Your task to perform on an android device: Open Reddit.com Image 0: 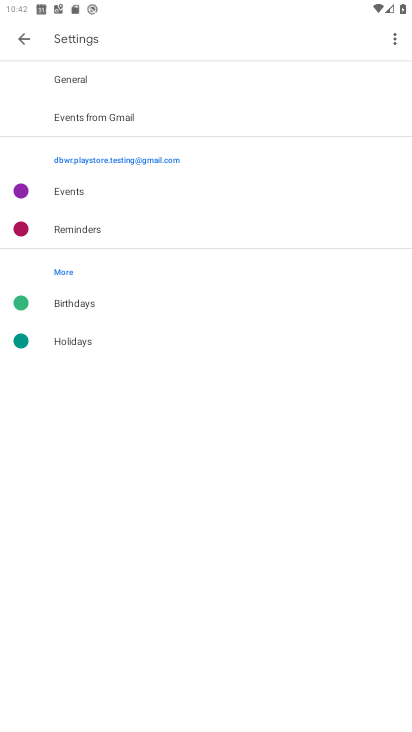
Step 0: press home button
Your task to perform on an android device: Open Reddit.com Image 1: 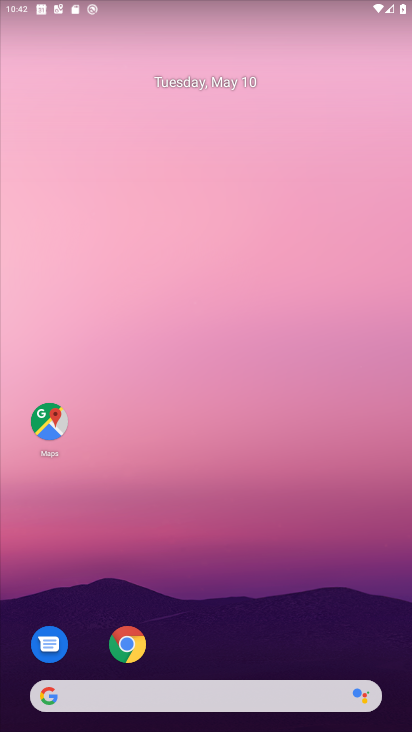
Step 1: drag from (165, 635) to (222, 86)
Your task to perform on an android device: Open Reddit.com Image 2: 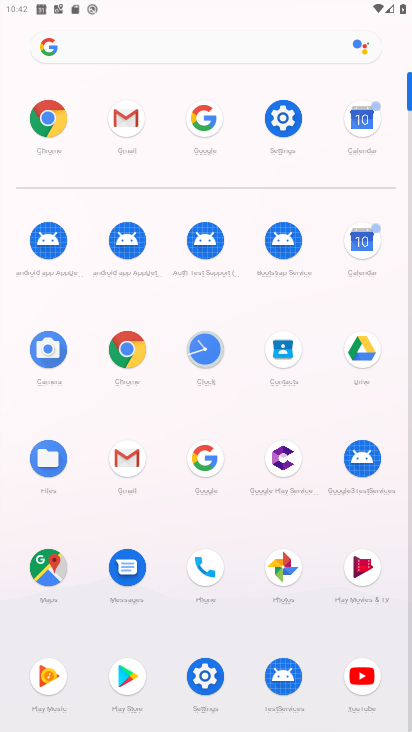
Step 2: click (56, 133)
Your task to perform on an android device: Open Reddit.com Image 3: 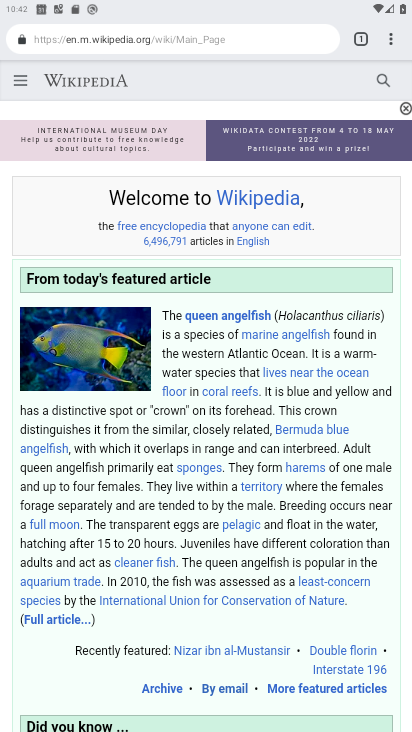
Step 3: click (314, 40)
Your task to perform on an android device: Open Reddit.com Image 4: 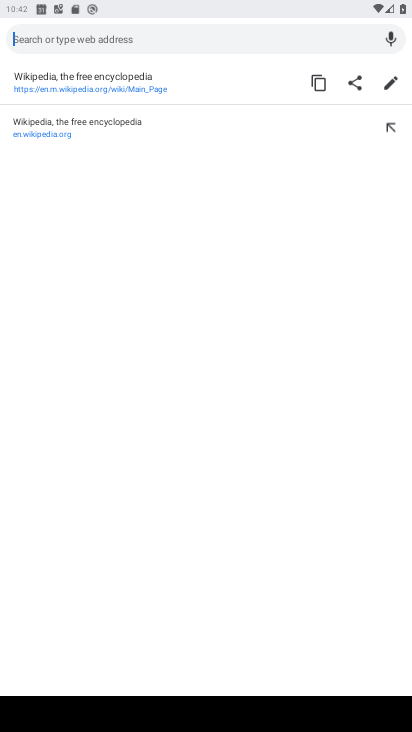
Step 4: type "reddit.com"
Your task to perform on an android device: Open Reddit.com Image 5: 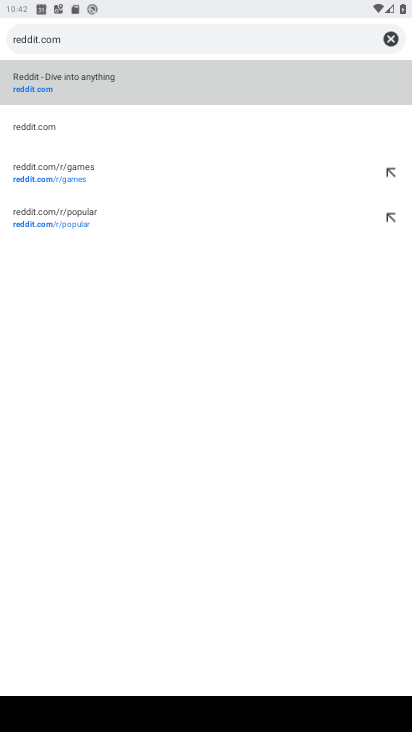
Step 5: click (309, 101)
Your task to perform on an android device: Open Reddit.com Image 6: 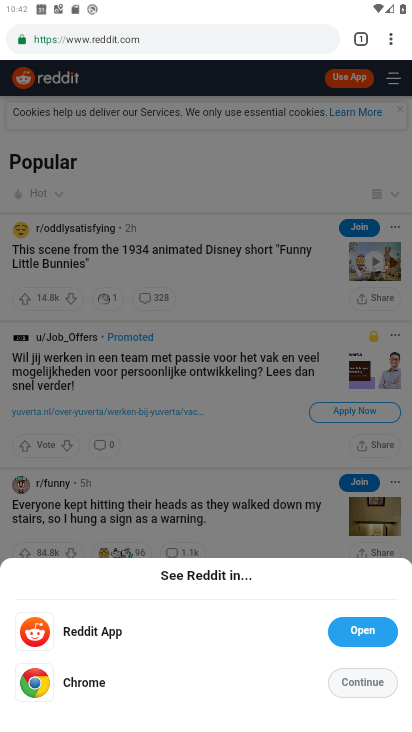
Step 6: click (360, 687)
Your task to perform on an android device: Open Reddit.com Image 7: 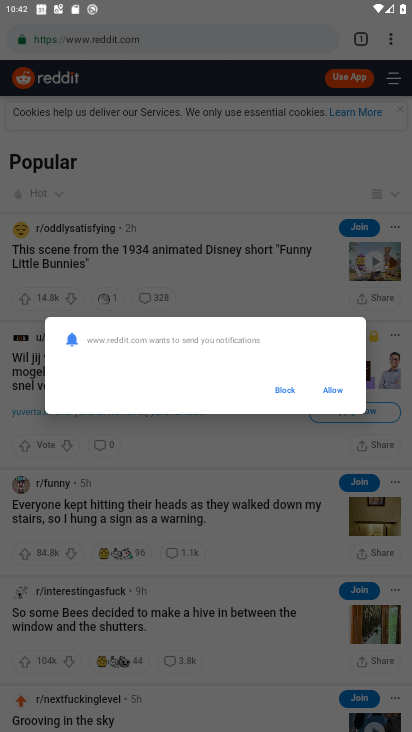
Step 7: click (280, 398)
Your task to perform on an android device: Open Reddit.com Image 8: 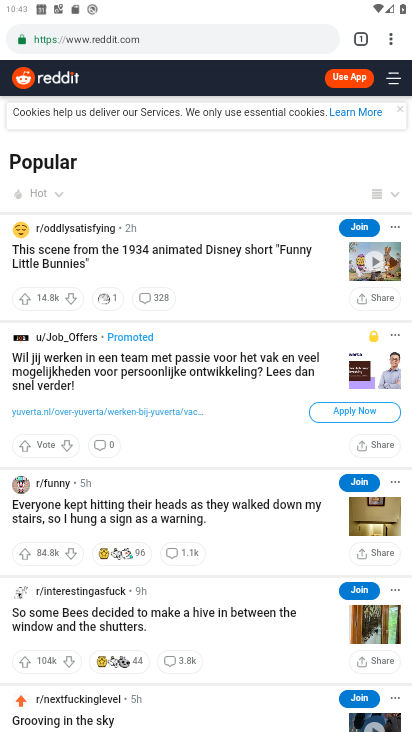
Step 8: task complete